Your task to perform on an android device: Go to settings Image 0: 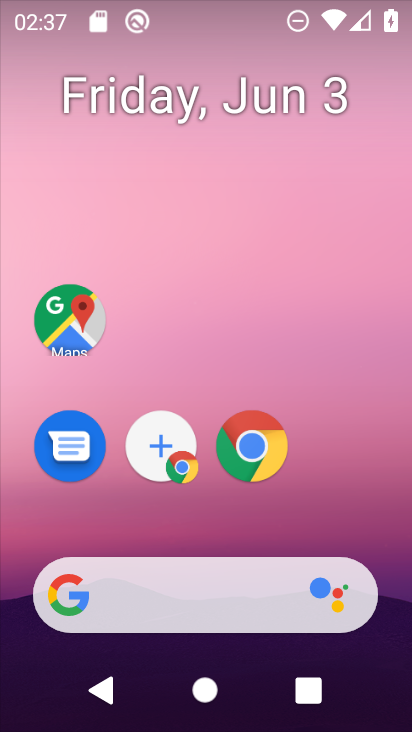
Step 0: drag from (249, 684) to (282, 81)
Your task to perform on an android device: Go to settings Image 1: 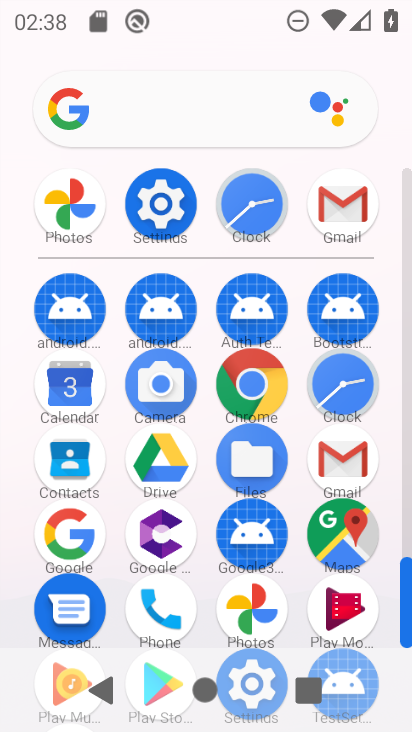
Step 1: click (166, 210)
Your task to perform on an android device: Go to settings Image 2: 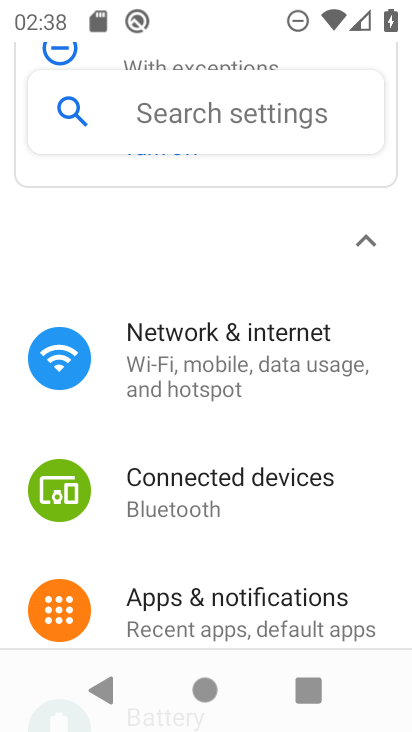
Step 2: task complete